Your task to perform on an android device: Is it going to rain today? Image 0: 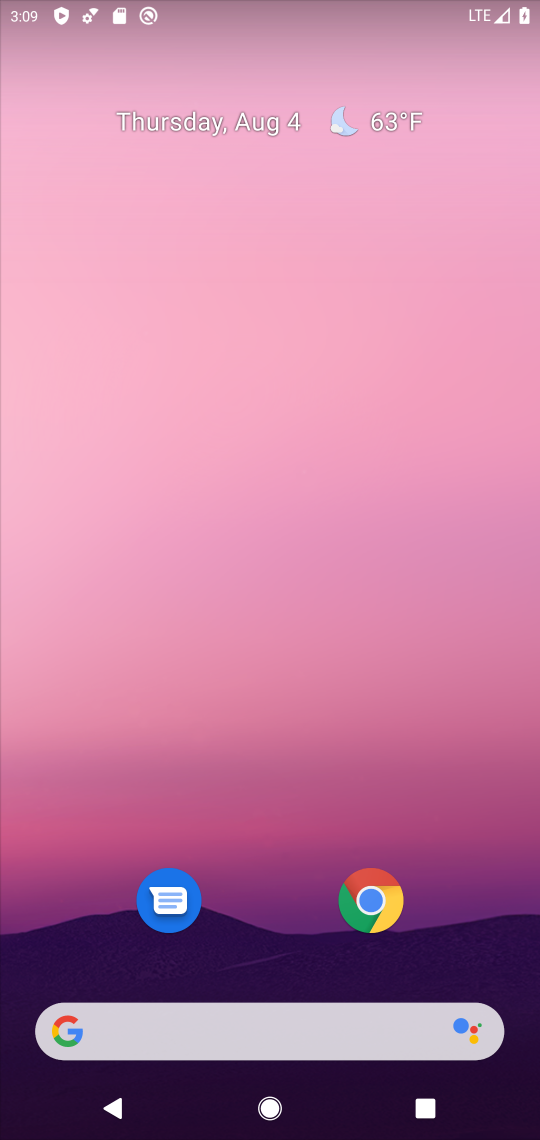
Step 0: drag from (430, 936) to (322, 258)
Your task to perform on an android device: Is it going to rain today? Image 1: 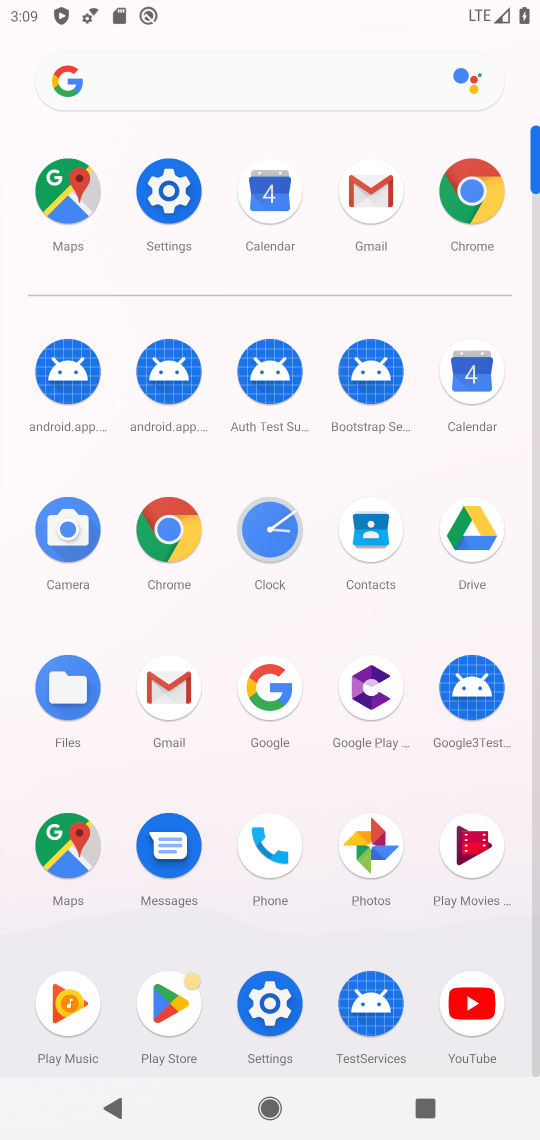
Step 1: click (484, 201)
Your task to perform on an android device: Is it going to rain today? Image 2: 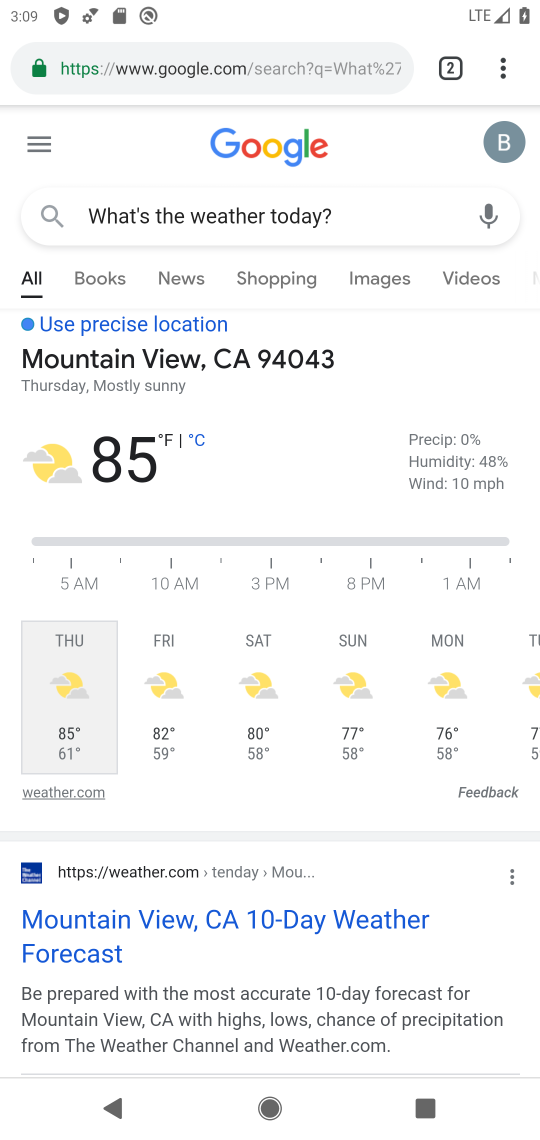
Step 2: click (364, 228)
Your task to perform on an android device: Is it going to rain today? Image 3: 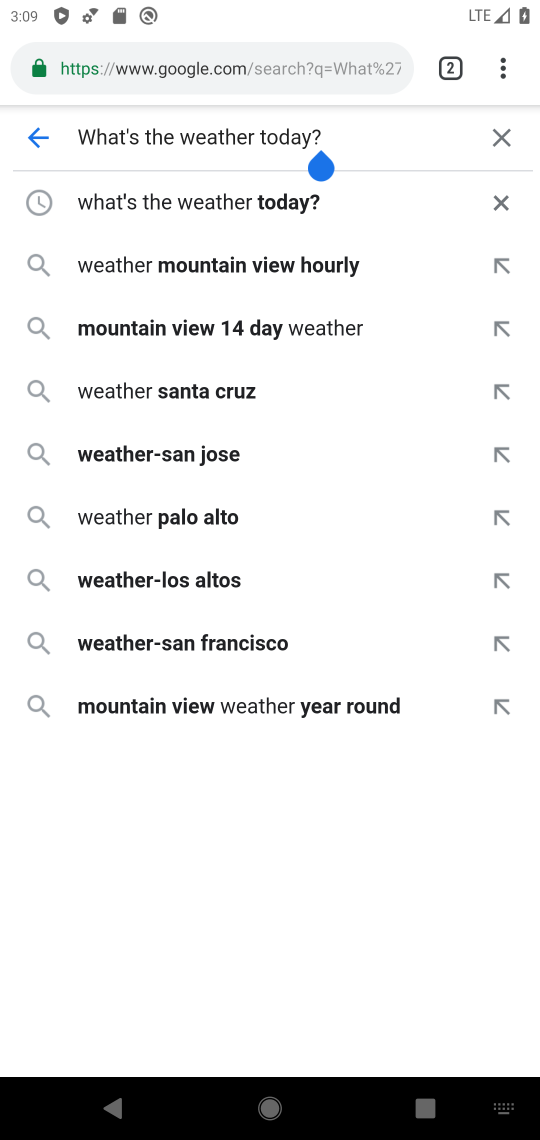
Step 3: click (514, 128)
Your task to perform on an android device: Is it going to rain today? Image 4: 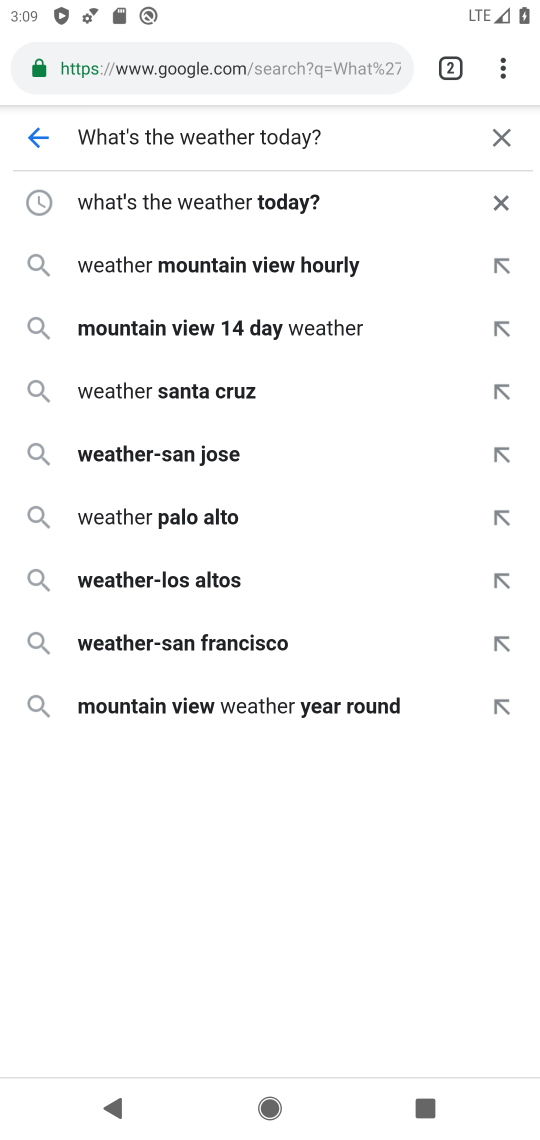
Step 4: click (501, 137)
Your task to perform on an android device: Is it going to rain today? Image 5: 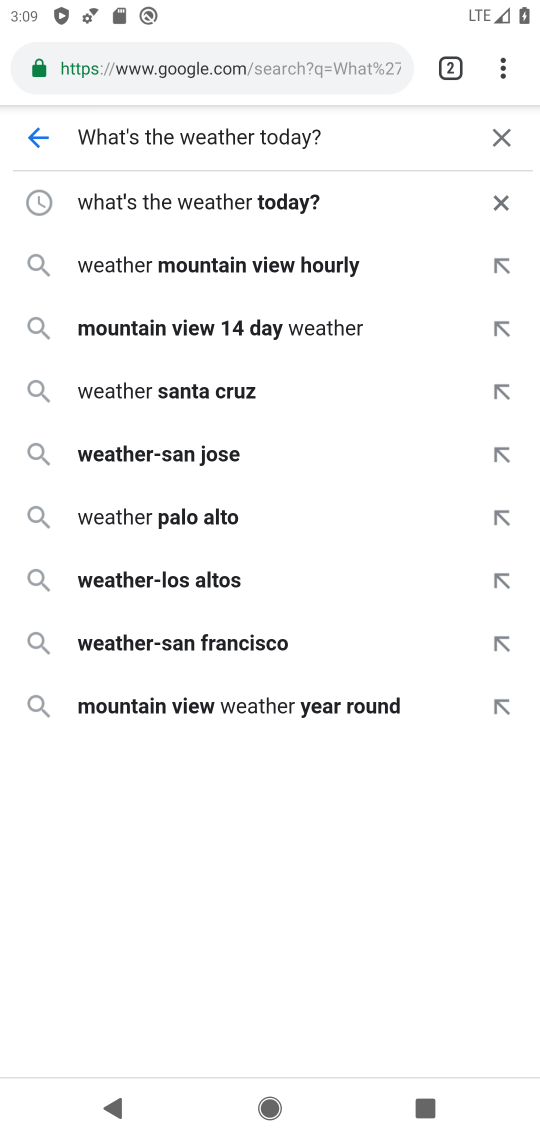
Step 5: click (149, 80)
Your task to perform on an android device: Is it going to rain today? Image 6: 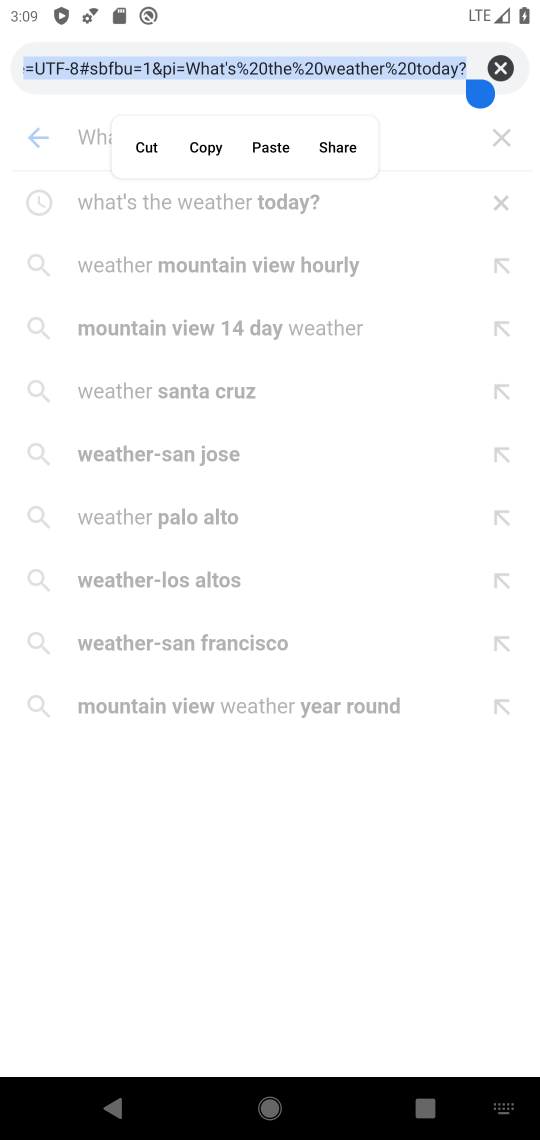
Step 6: type "Is it going to rain today?"
Your task to perform on an android device: Is it going to rain today? Image 7: 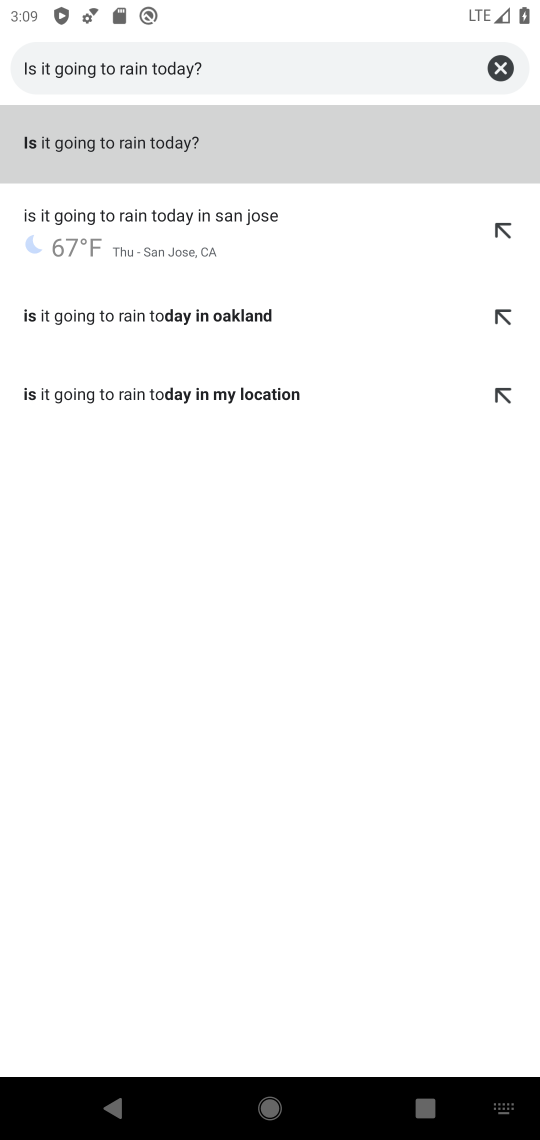
Step 7: click (180, 138)
Your task to perform on an android device: Is it going to rain today? Image 8: 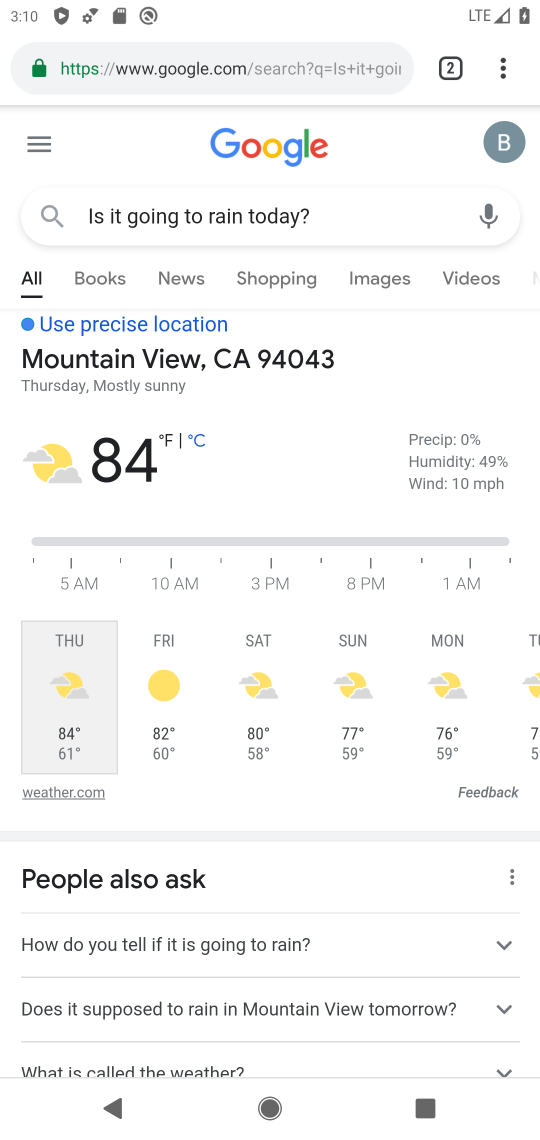
Step 8: task complete